Your task to perform on an android device: open a bookmark in the chrome app Image 0: 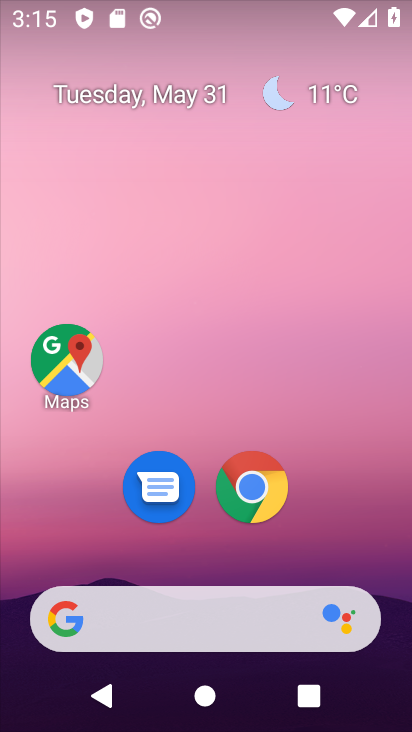
Step 0: click (249, 487)
Your task to perform on an android device: open a bookmark in the chrome app Image 1: 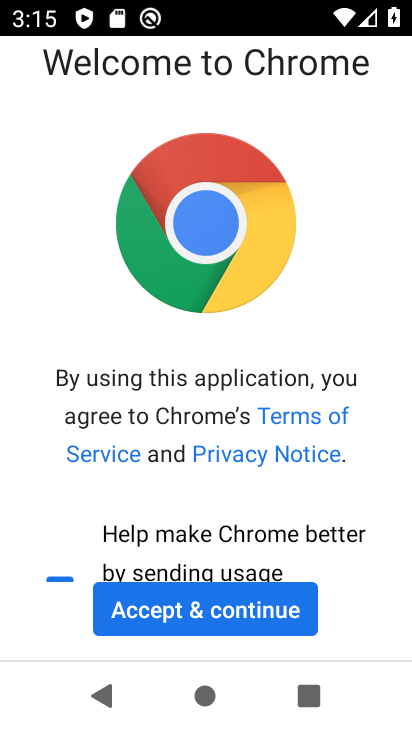
Step 1: click (203, 610)
Your task to perform on an android device: open a bookmark in the chrome app Image 2: 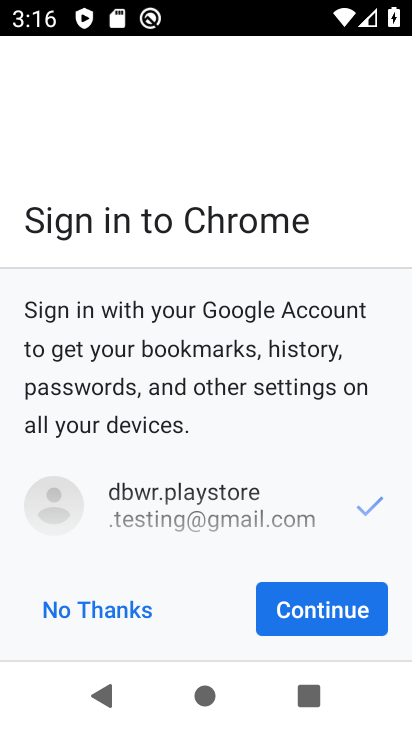
Step 2: click (298, 611)
Your task to perform on an android device: open a bookmark in the chrome app Image 3: 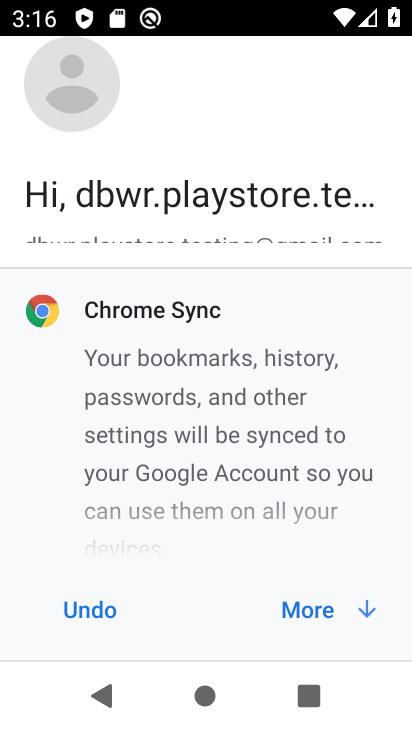
Step 3: click (298, 611)
Your task to perform on an android device: open a bookmark in the chrome app Image 4: 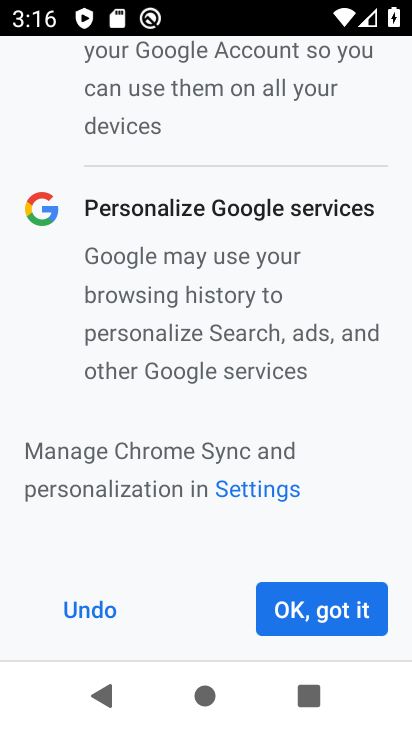
Step 4: click (298, 611)
Your task to perform on an android device: open a bookmark in the chrome app Image 5: 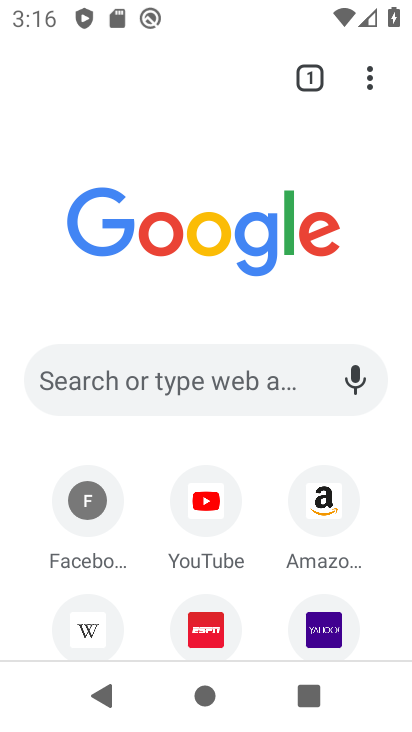
Step 5: click (371, 78)
Your task to perform on an android device: open a bookmark in the chrome app Image 6: 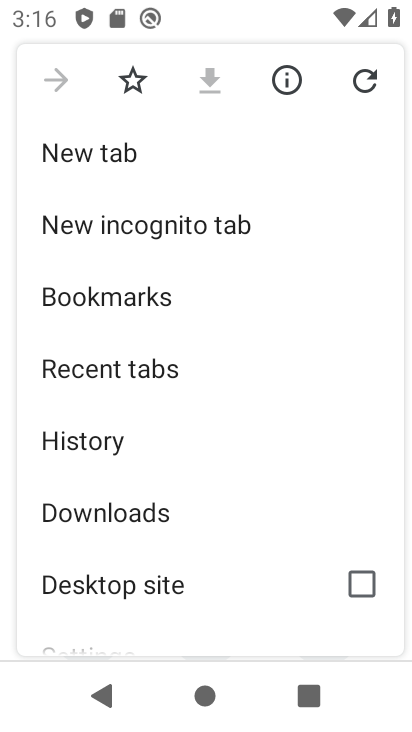
Step 6: click (165, 299)
Your task to perform on an android device: open a bookmark in the chrome app Image 7: 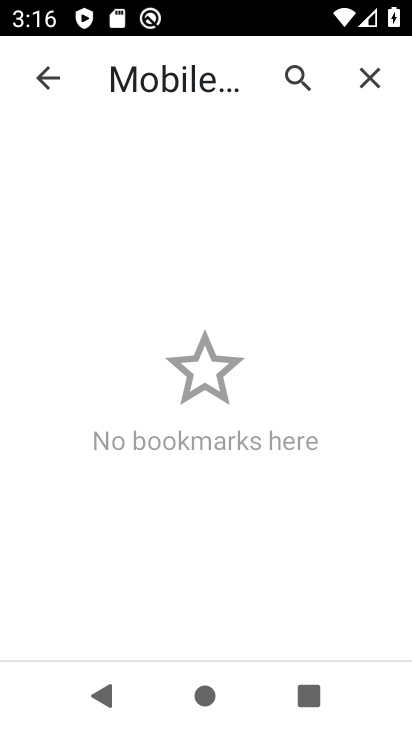
Step 7: task complete